Your task to perform on an android device: Open the Play Movies app and select the watchlist tab. Image 0: 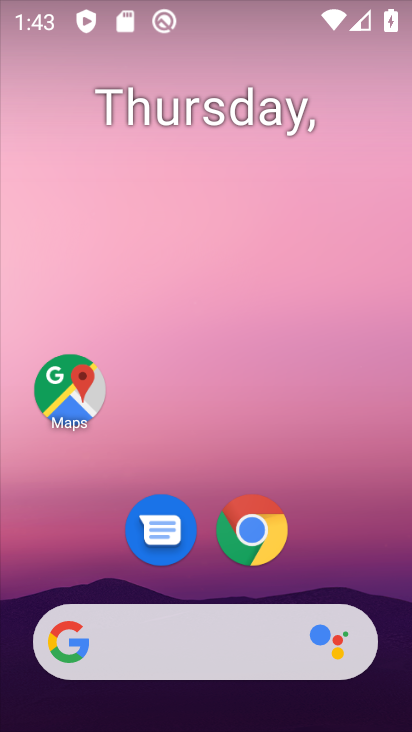
Step 0: drag from (247, 701) to (261, 57)
Your task to perform on an android device: Open the Play Movies app and select the watchlist tab. Image 1: 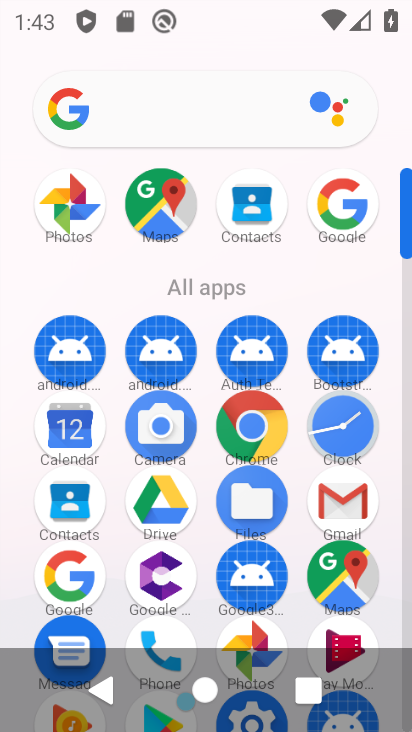
Step 1: click (351, 636)
Your task to perform on an android device: Open the Play Movies app and select the watchlist tab. Image 2: 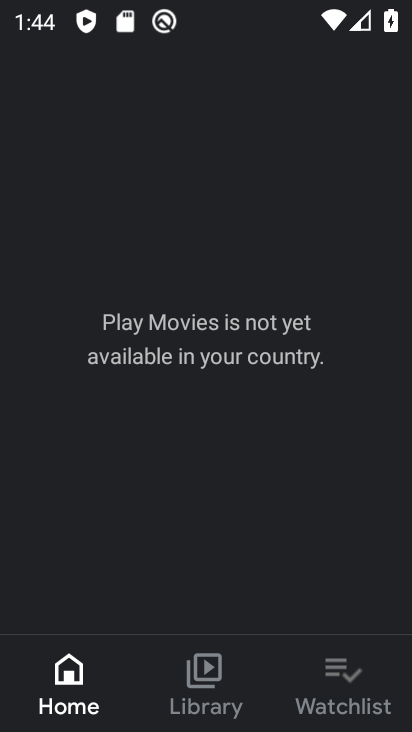
Step 2: click (348, 676)
Your task to perform on an android device: Open the Play Movies app and select the watchlist tab. Image 3: 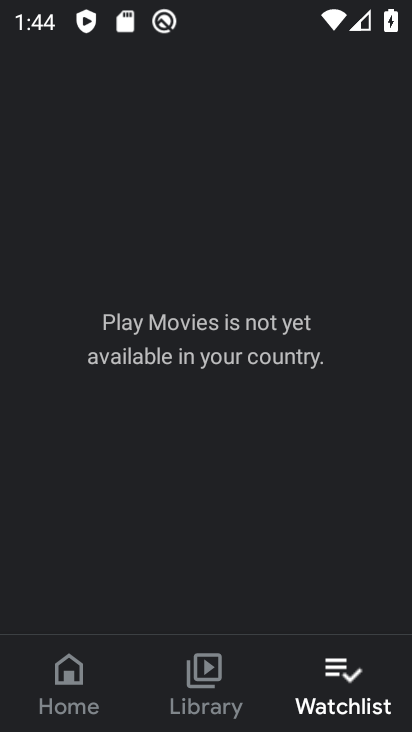
Step 3: task complete